Your task to perform on an android device: turn pop-ups on in chrome Image 0: 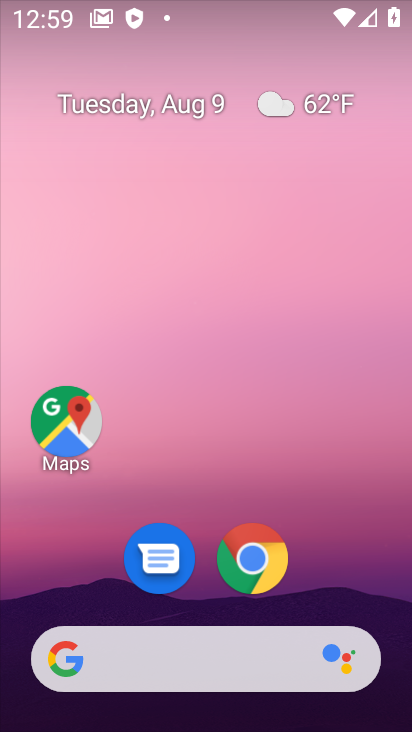
Step 0: click (265, 567)
Your task to perform on an android device: turn pop-ups on in chrome Image 1: 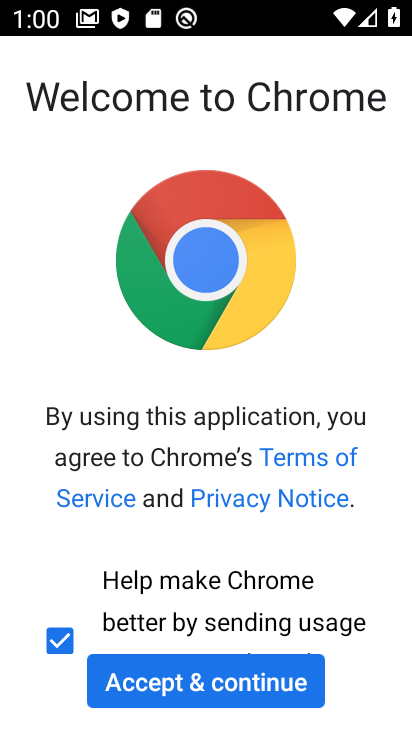
Step 1: click (268, 692)
Your task to perform on an android device: turn pop-ups on in chrome Image 2: 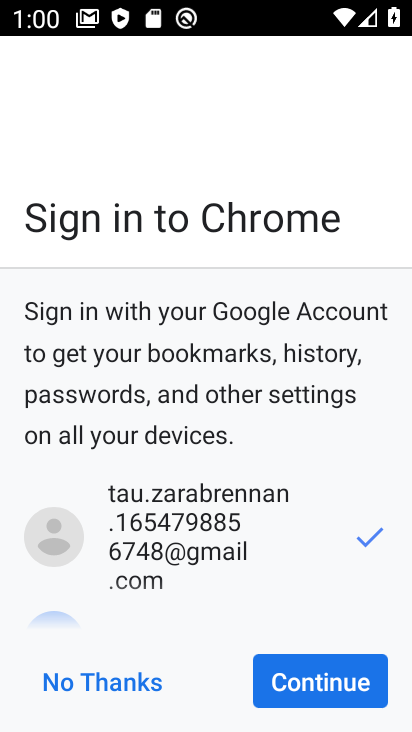
Step 2: click (321, 668)
Your task to perform on an android device: turn pop-ups on in chrome Image 3: 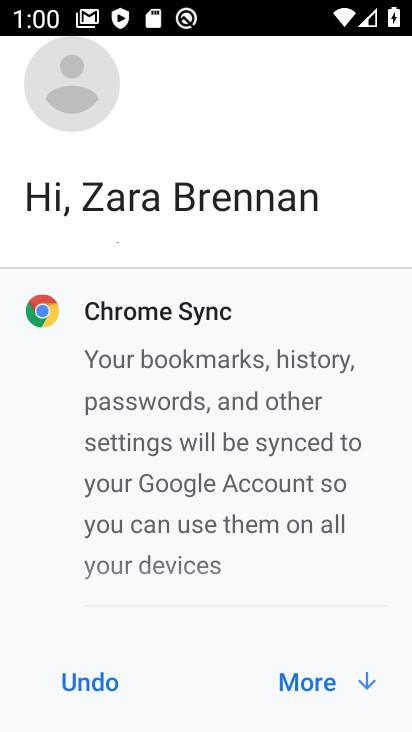
Step 3: click (307, 679)
Your task to perform on an android device: turn pop-ups on in chrome Image 4: 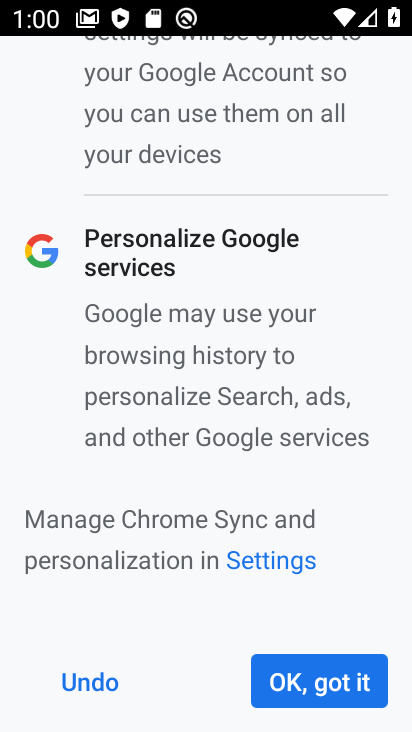
Step 4: click (307, 679)
Your task to perform on an android device: turn pop-ups on in chrome Image 5: 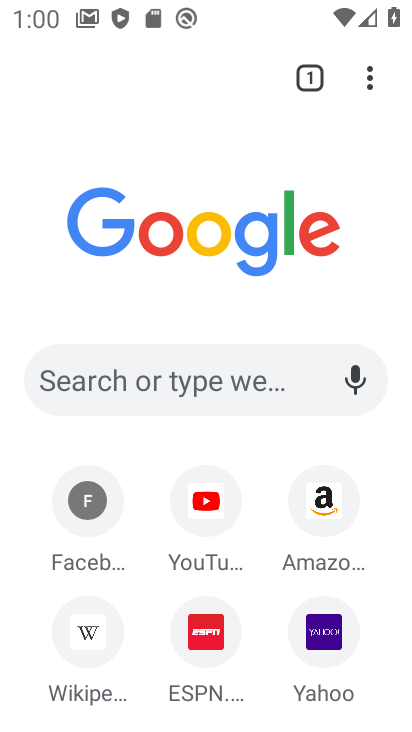
Step 5: click (379, 70)
Your task to perform on an android device: turn pop-ups on in chrome Image 6: 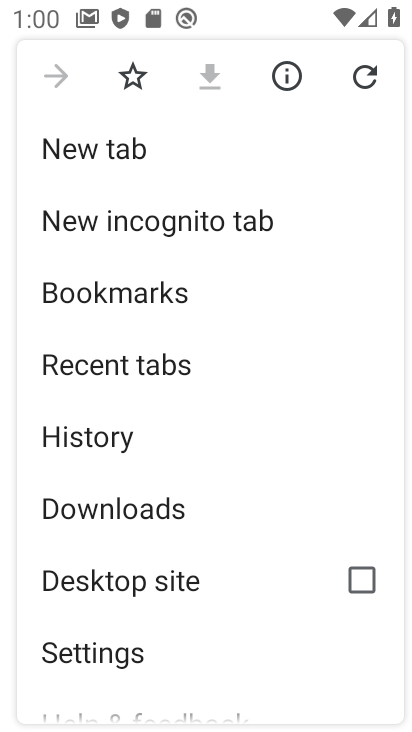
Step 6: click (139, 647)
Your task to perform on an android device: turn pop-ups on in chrome Image 7: 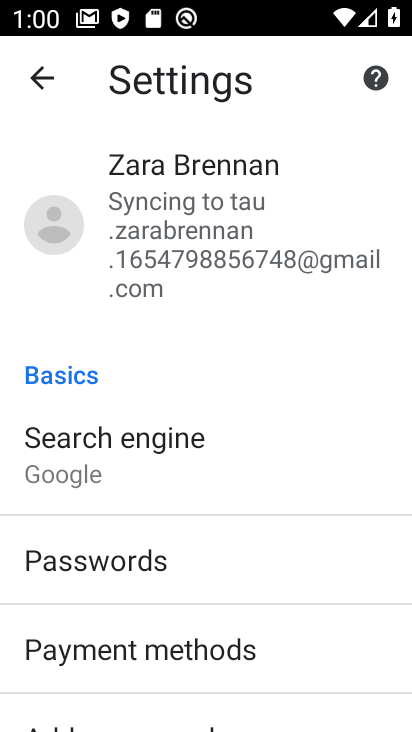
Step 7: drag from (227, 601) to (188, 173)
Your task to perform on an android device: turn pop-ups on in chrome Image 8: 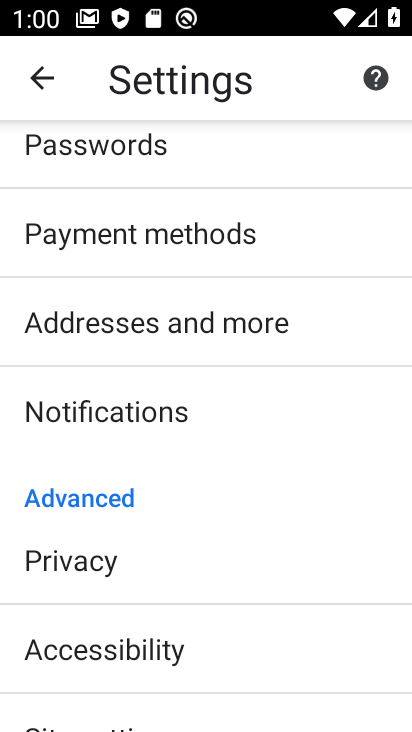
Step 8: drag from (248, 590) to (212, 356)
Your task to perform on an android device: turn pop-ups on in chrome Image 9: 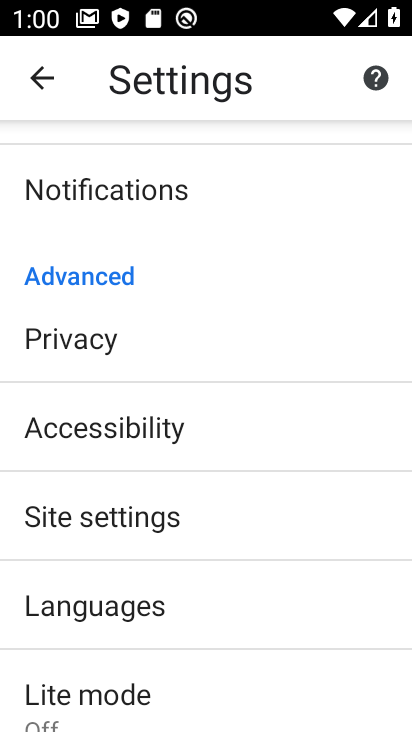
Step 9: click (187, 527)
Your task to perform on an android device: turn pop-ups on in chrome Image 10: 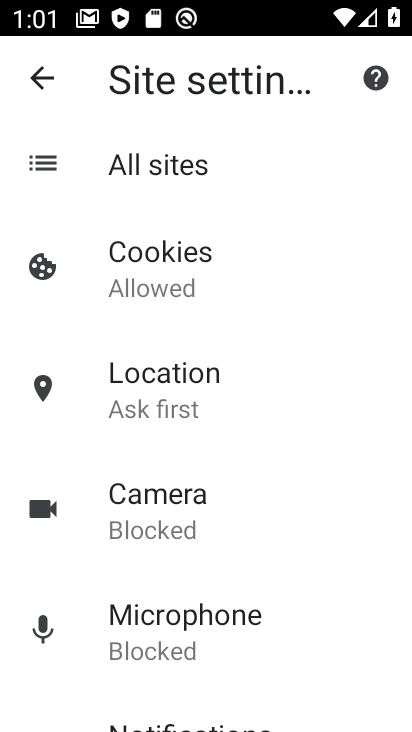
Step 10: drag from (345, 578) to (313, 295)
Your task to perform on an android device: turn pop-ups on in chrome Image 11: 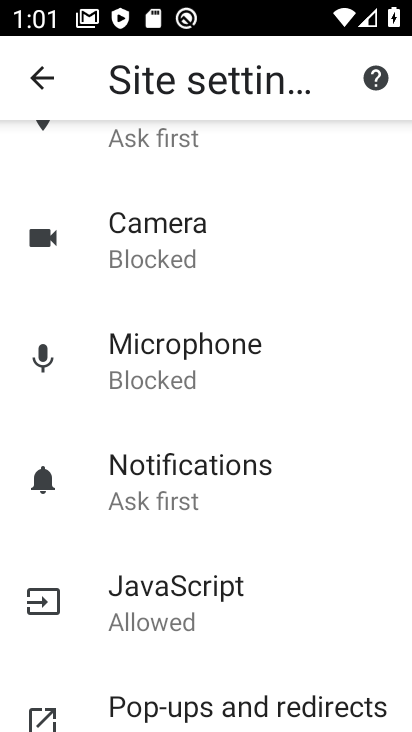
Step 11: click (291, 701)
Your task to perform on an android device: turn pop-ups on in chrome Image 12: 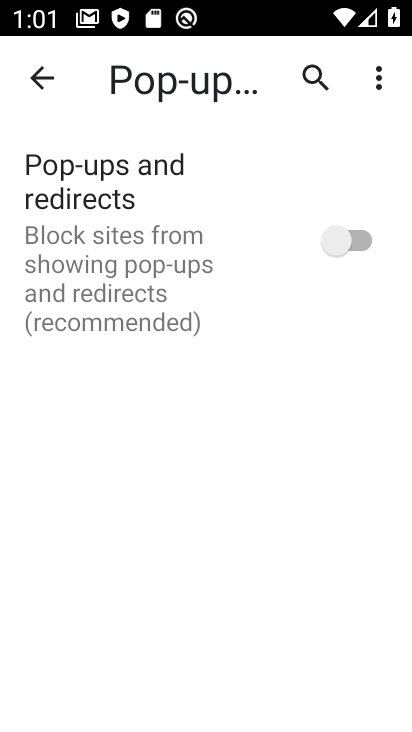
Step 12: click (342, 239)
Your task to perform on an android device: turn pop-ups on in chrome Image 13: 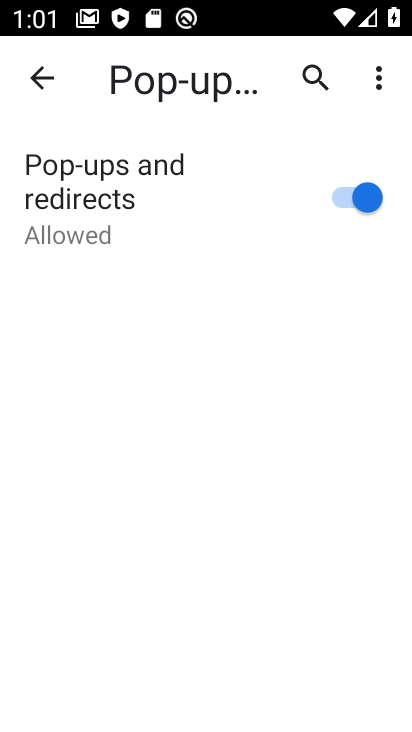
Step 13: task complete